Your task to perform on an android device: turn off sleep mode Image 0: 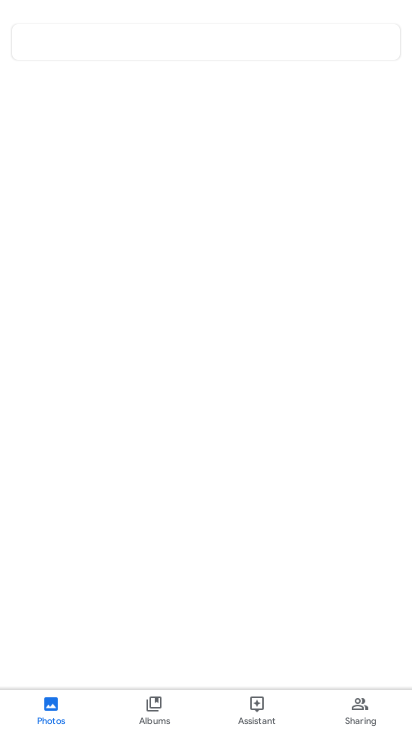
Step 0: press home button
Your task to perform on an android device: turn off sleep mode Image 1: 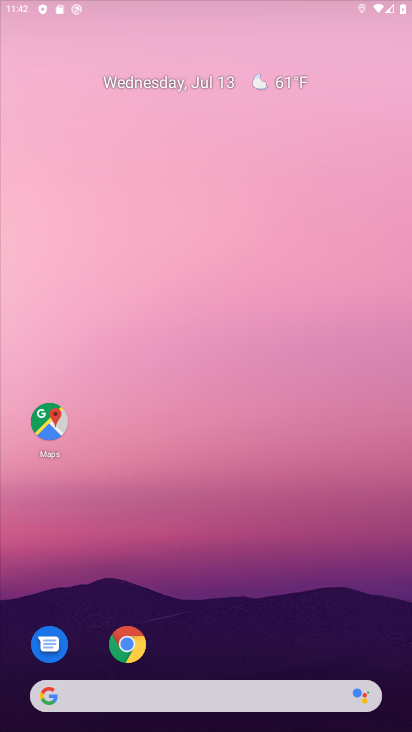
Step 1: drag from (256, 576) to (251, 107)
Your task to perform on an android device: turn off sleep mode Image 2: 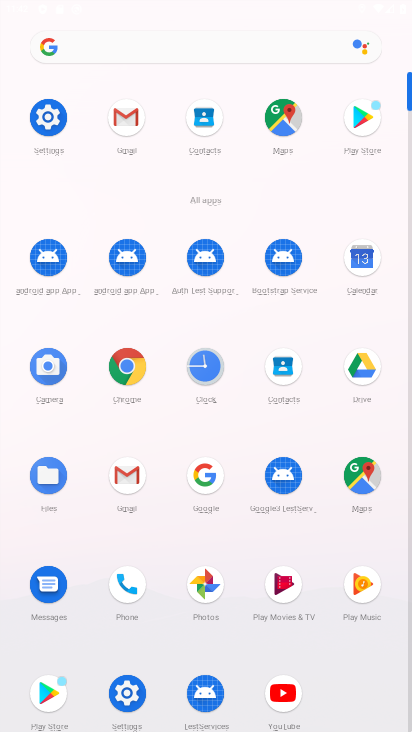
Step 2: click (52, 121)
Your task to perform on an android device: turn off sleep mode Image 3: 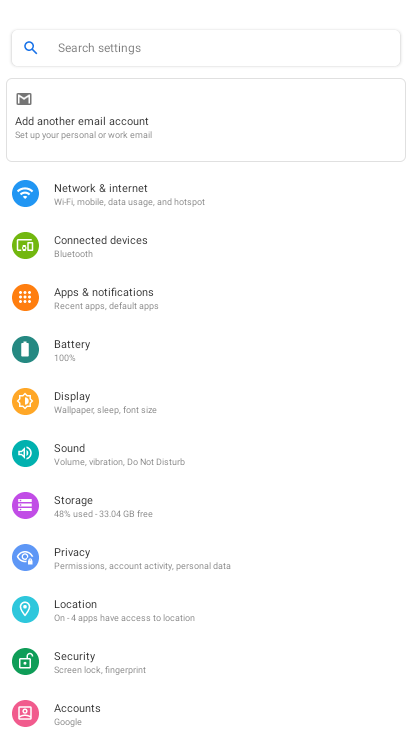
Step 3: click (117, 402)
Your task to perform on an android device: turn off sleep mode Image 4: 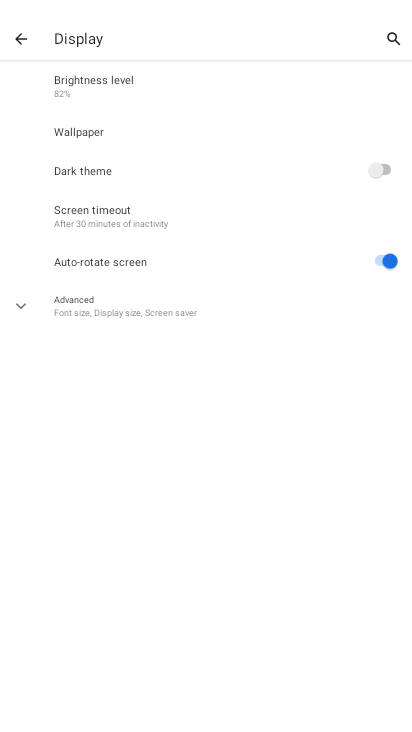
Step 4: click (99, 216)
Your task to perform on an android device: turn off sleep mode Image 5: 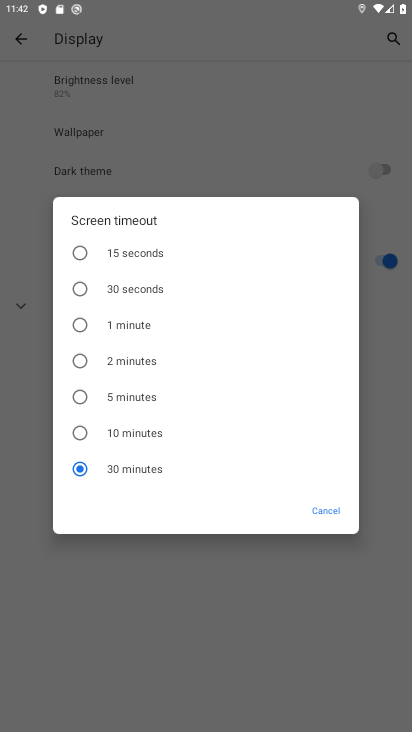
Step 5: task complete